Your task to perform on an android device: turn on showing notifications on the lock screen Image 0: 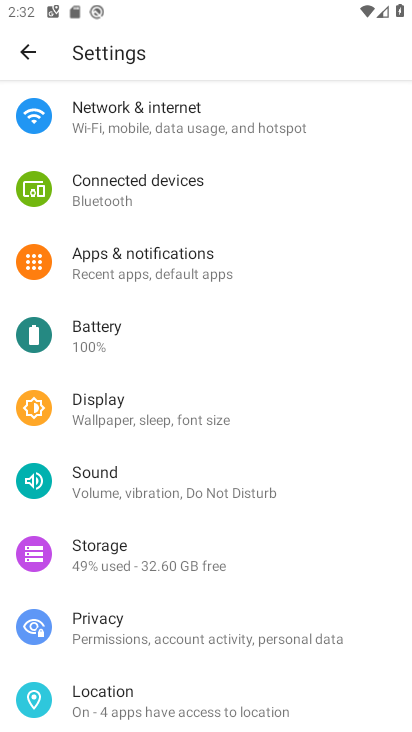
Step 0: drag from (200, 564) to (192, 619)
Your task to perform on an android device: turn on showing notifications on the lock screen Image 1: 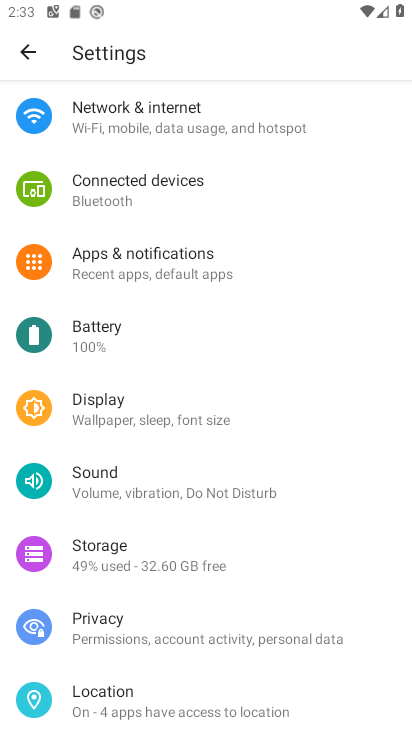
Step 1: click (157, 269)
Your task to perform on an android device: turn on showing notifications on the lock screen Image 2: 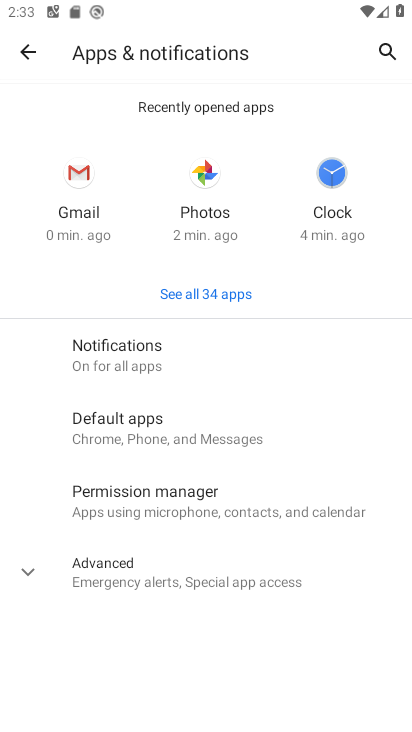
Step 2: click (145, 333)
Your task to perform on an android device: turn on showing notifications on the lock screen Image 3: 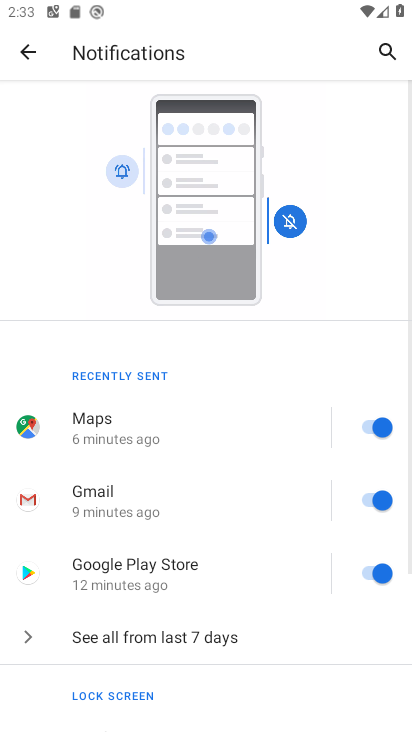
Step 3: drag from (229, 486) to (275, 72)
Your task to perform on an android device: turn on showing notifications on the lock screen Image 4: 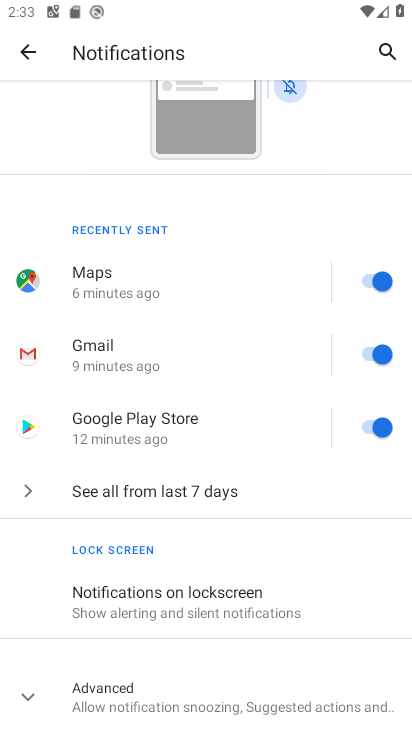
Step 4: click (17, 695)
Your task to perform on an android device: turn on showing notifications on the lock screen Image 5: 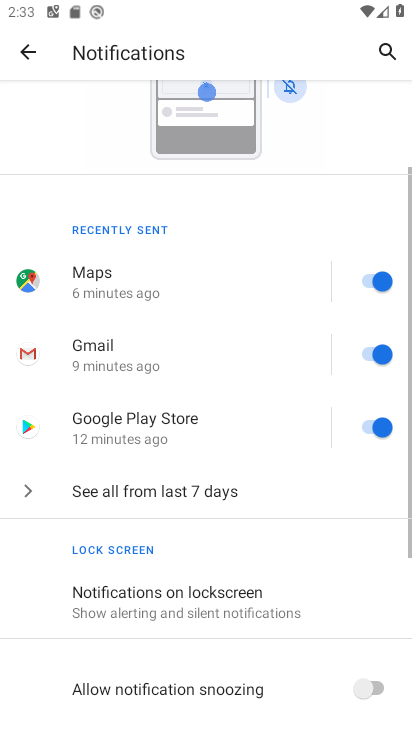
Step 5: drag from (224, 639) to (247, 212)
Your task to perform on an android device: turn on showing notifications on the lock screen Image 6: 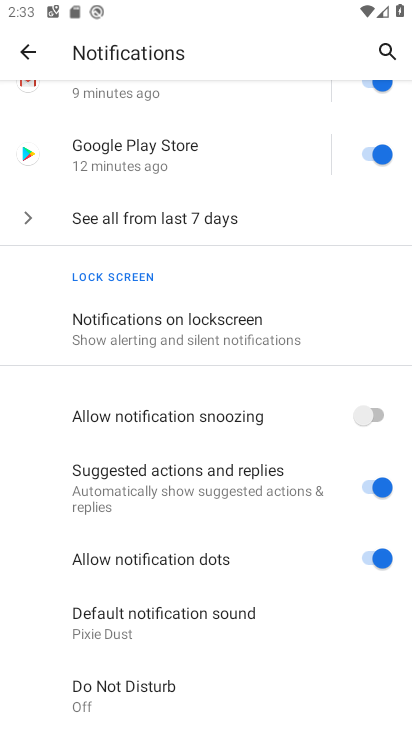
Step 6: click (201, 325)
Your task to perform on an android device: turn on showing notifications on the lock screen Image 7: 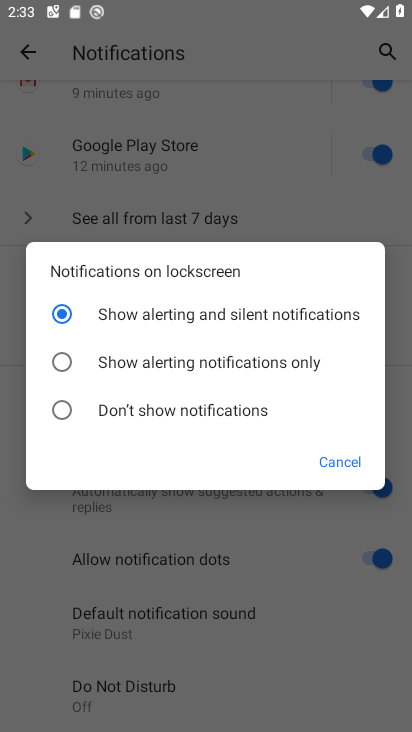
Step 7: click (201, 325)
Your task to perform on an android device: turn on showing notifications on the lock screen Image 8: 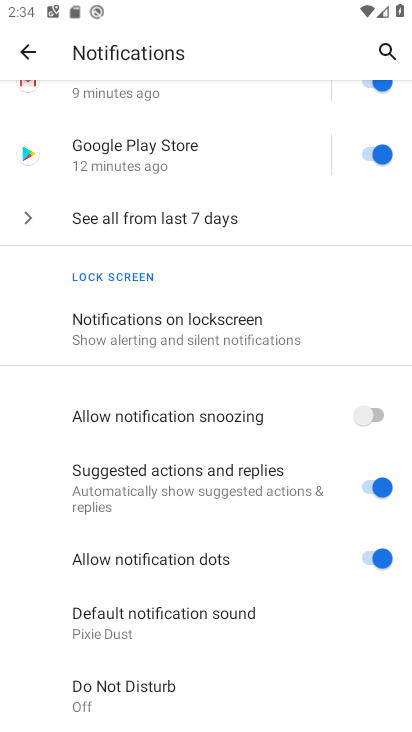
Step 8: task complete